Your task to perform on an android device: Show me the alarms in the clock app Image 0: 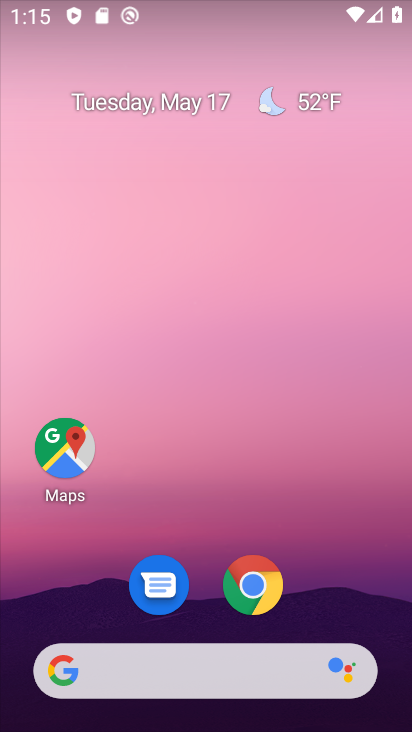
Step 0: drag from (341, 562) to (286, 72)
Your task to perform on an android device: Show me the alarms in the clock app Image 1: 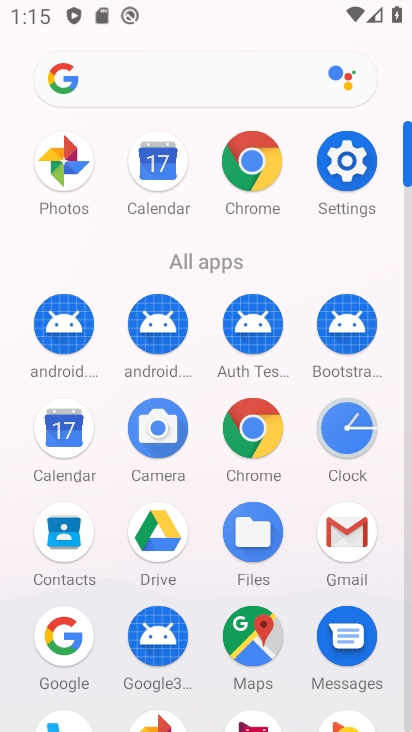
Step 1: click (327, 417)
Your task to perform on an android device: Show me the alarms in the clock app Image 2: 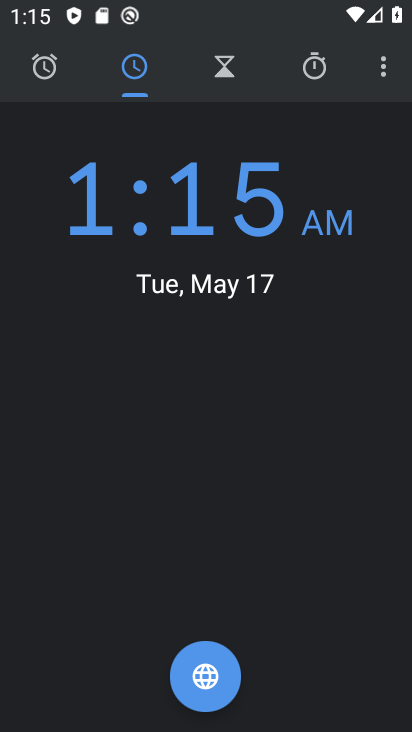
Step 2: click (48, 68)
Your task to perform on an android device: Show me the alarms in the clock app Image 3: 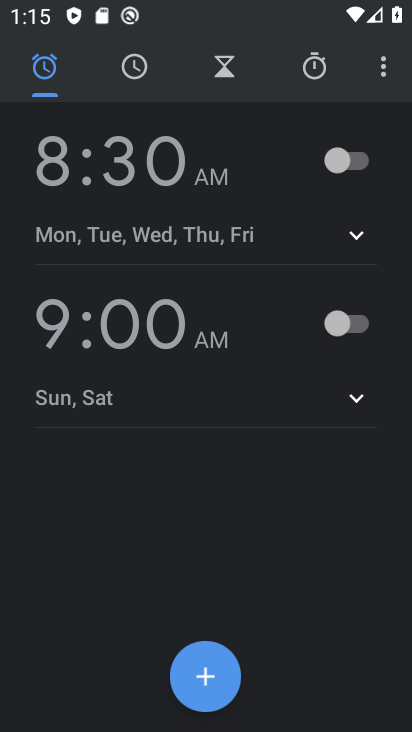
Step 3: task complete